Your task to perform on an android device: Open the phone app and click the voicemail tab. Image 0: 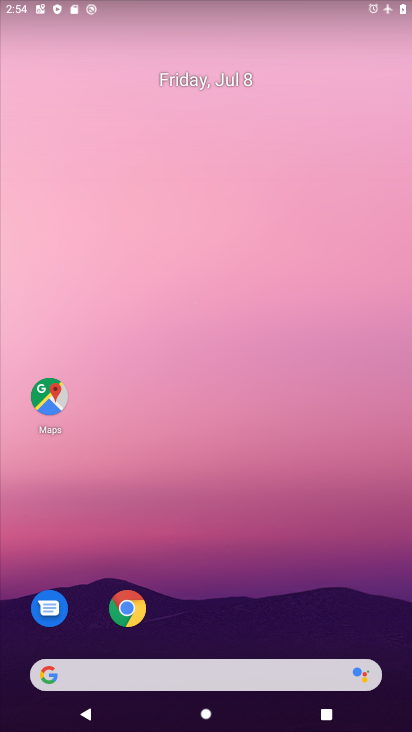
Step 0: drag from (287, 644) to (350, 21)
Your task to perform on an android device: Open the phone app and click the voicemail tab. Image 1: 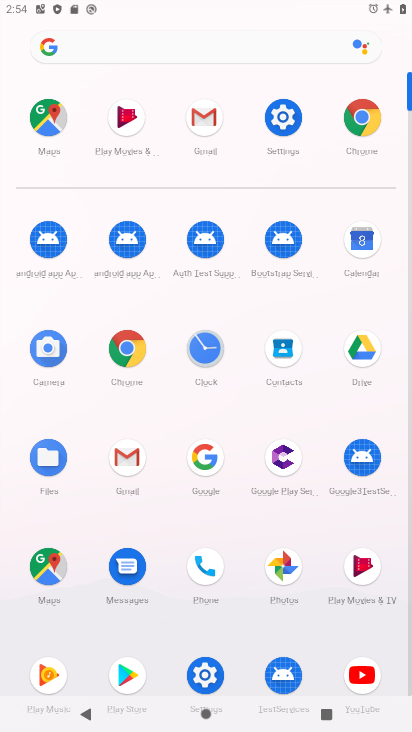
Step 1: click (205, 565)
Your task to perform on an android device: Open the phone app and click the voicemail tab. Image 2: 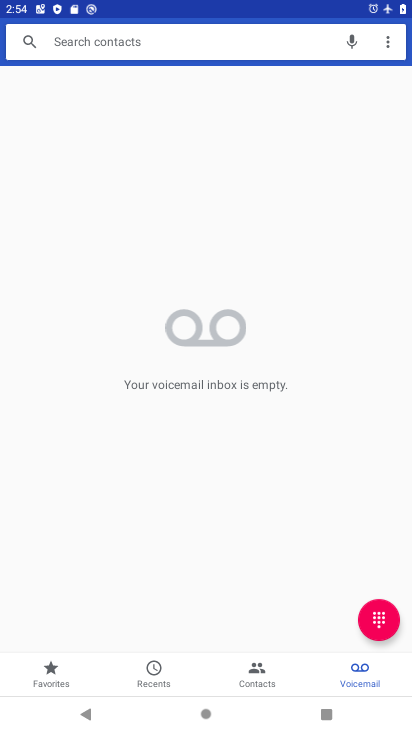
Step 2: click (348, 679)
Your task to perform on an android device: Open the phone app and click the voicemail tab. Image 3: 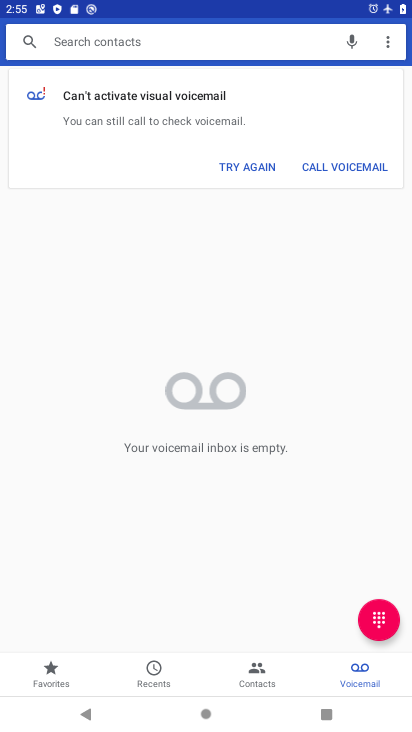
Step 3: click (385, 680)
Your task to perform on an android device: Open the phone app and click the voicemail tab. Image 4: 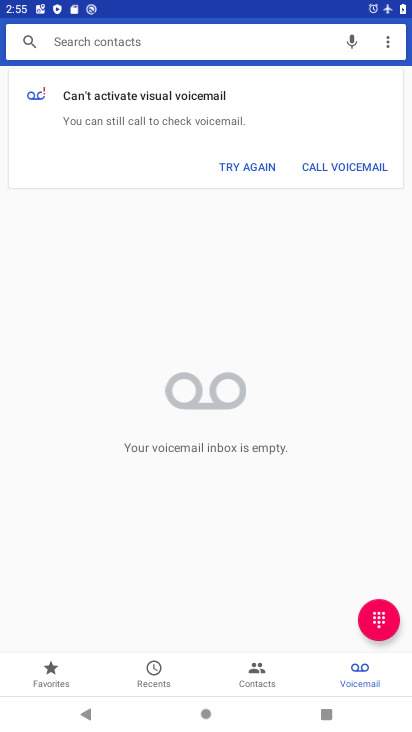
Step 4: task complete